Your task to perform on an android device: Open Reddit.com Image 0: 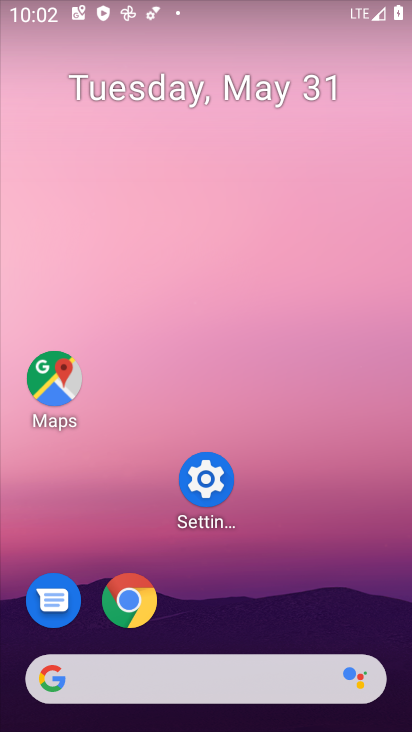
Step 0: press home button
Your task to perform on an android device: Open Reddit.com Image 1: 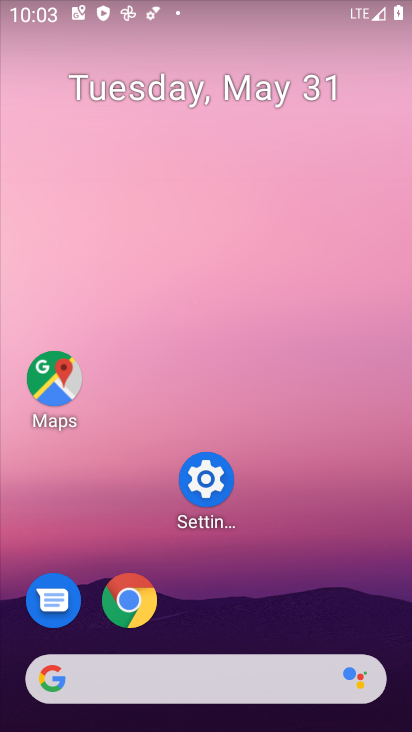
Step 1: click (139, 605)
Your task to perform on an android device: Open Reddit.com Image 2: 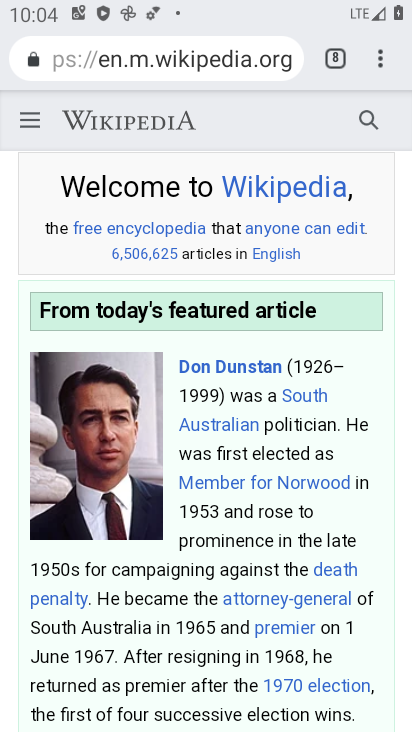
Step 2: click (181, 60)
Your task to perform on an android device: Open Reddit.com Image 3: 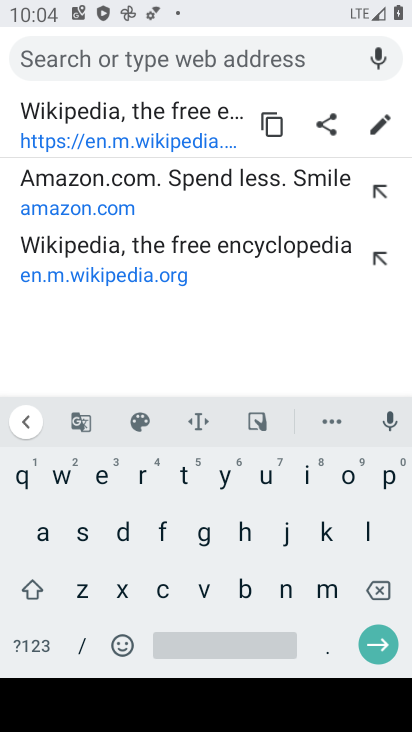
Step 3: click (147, 470)
Your task to perform on an android device: Open Reddit.com Image 4: 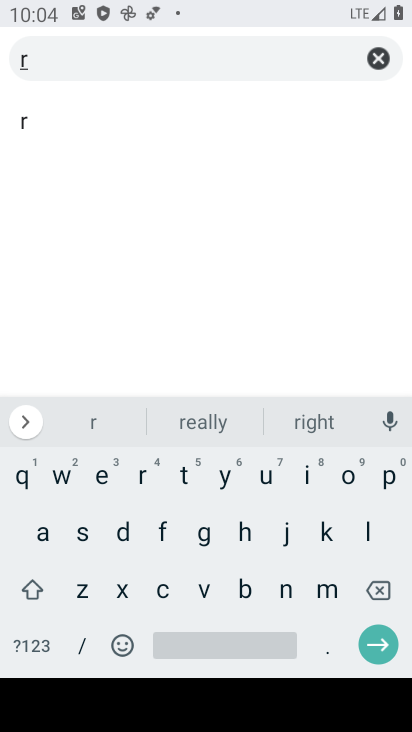
Step 4: click (94, 472)
Your task to perform on an android device: Open Reddit.com Image 5: 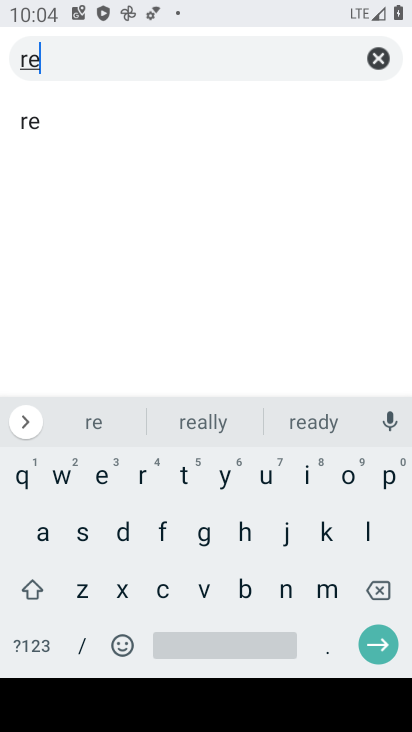
Step 5: click (128, 540)
Your task to perform on an android device: Open Reddit.com Image 6: 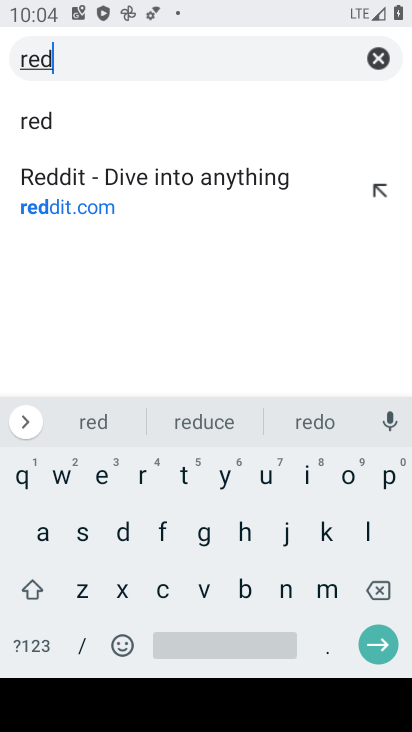
Step 6: click (157, 178)
Your task to perform on an android device: Open Reddit.com Image 7: 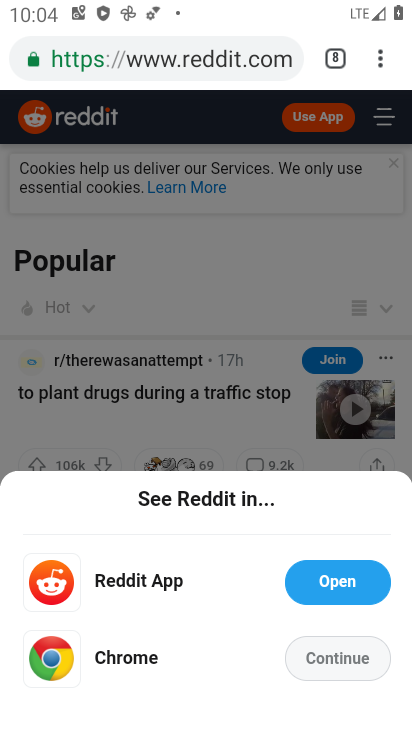
Step 7: task complete